Your task to perform on an android device: turn on translation in the chrome app Image 0: 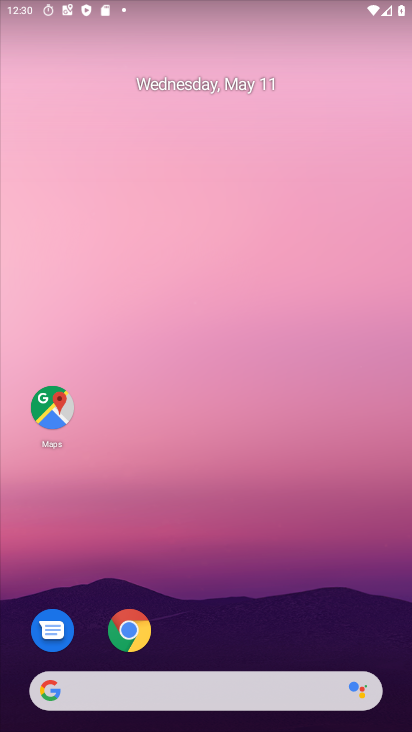
Step 0: drag from (269, 587) to (305, 80)
Your task to perform on an android device: turn on translation in the chrome app Image 1: 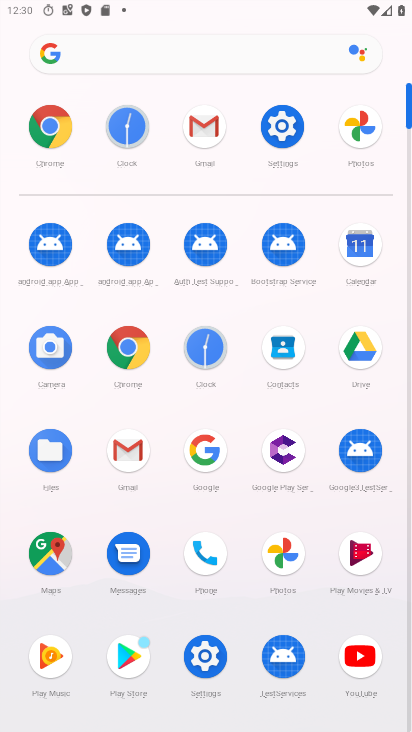
Step 1: click (134, 334)
Your task to perform on an android device: turn on translation in the chrome app Image 2: 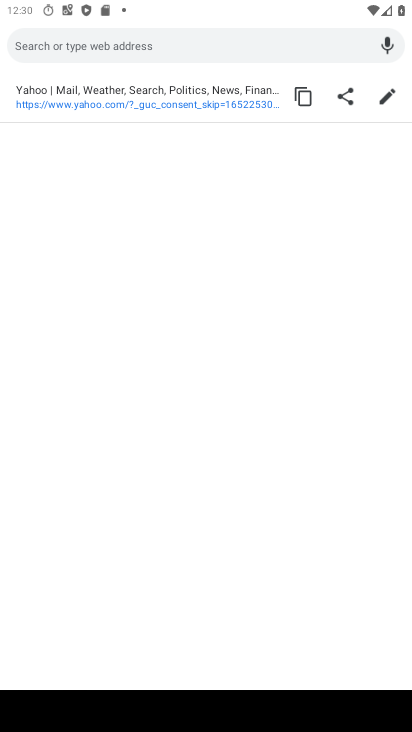
Step 2: press back button
Your task to perform on an android device: turn on translation in the chrome app Image 3: 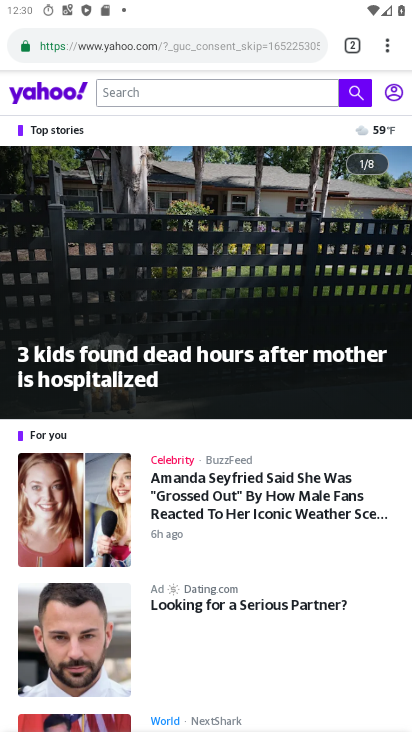
Step 3: drag from (393, 46) to (248, 553)
Your task to perform on an android device: turn on translation in the chrome app Image 4: 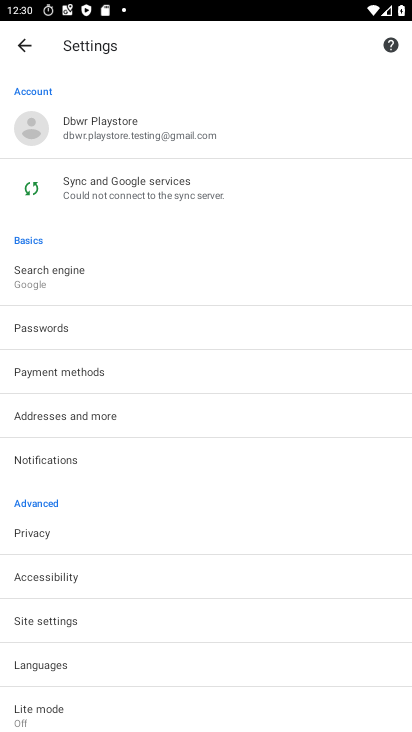
Step 4: click (69, 660)
Your task to perform on an android device: turn on translation in the chrome app Image 5: 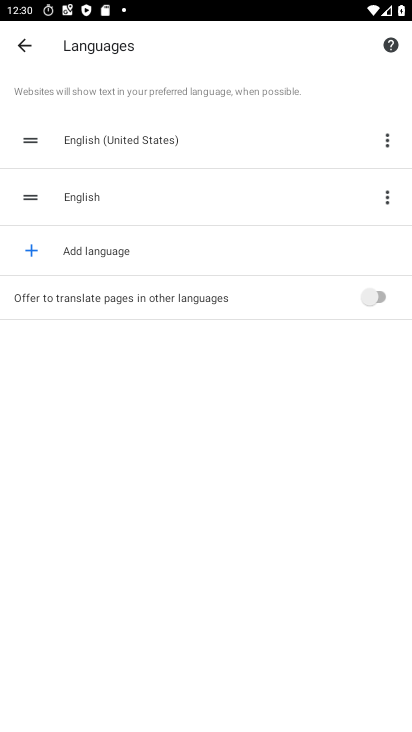
Step 5: click (367, 290)
Your task to perform on an android device: turn on translation in the chrome app Image 6: 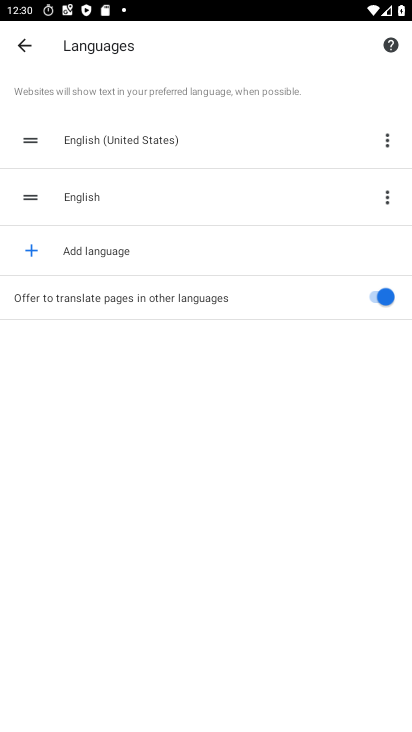
Step 6: task complete